Your task to perform on an android device: Go to battery settings Image 0: 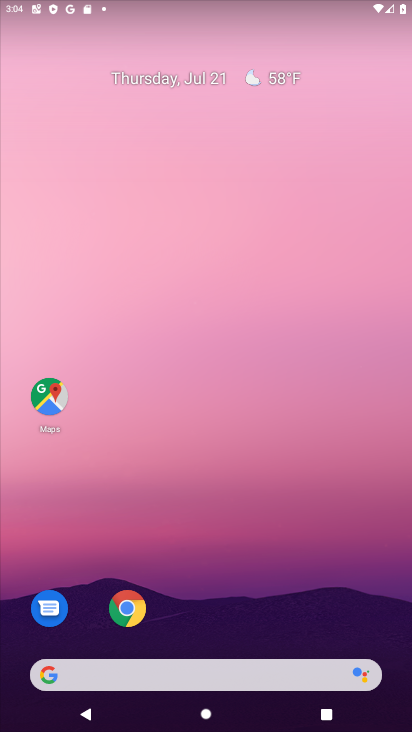
Step 0: press home button
Your task to perform on an android device: Go to battery settings Image 1: 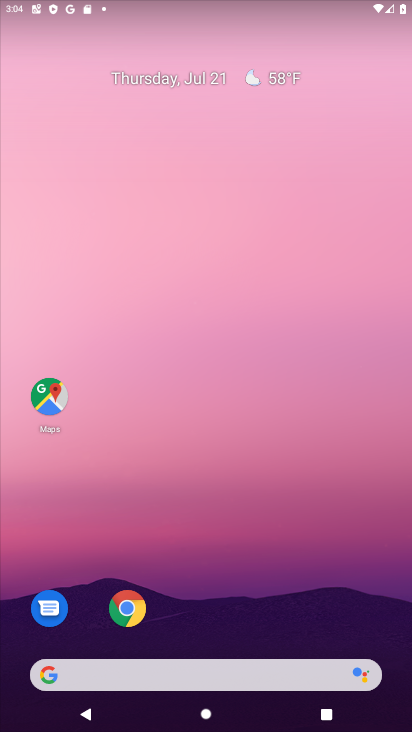
Step 1: drag from (220, 634) to (277, 10)
Your task to perform on an android device: Go to battery settings Image 2: 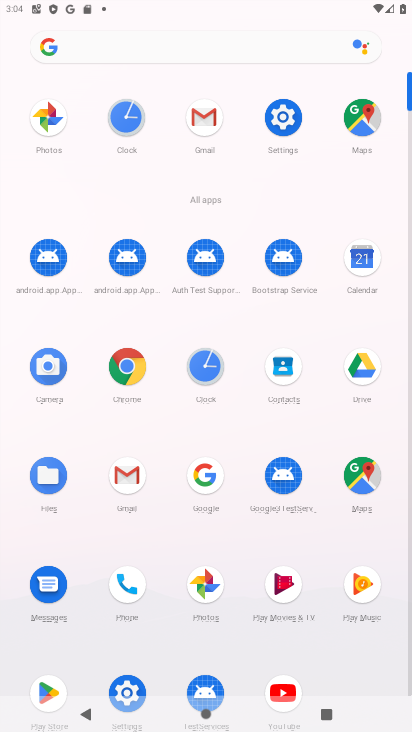
Step 2: click (281, 113)
Your task to perform on an android device: Go to battery settings Image 3: 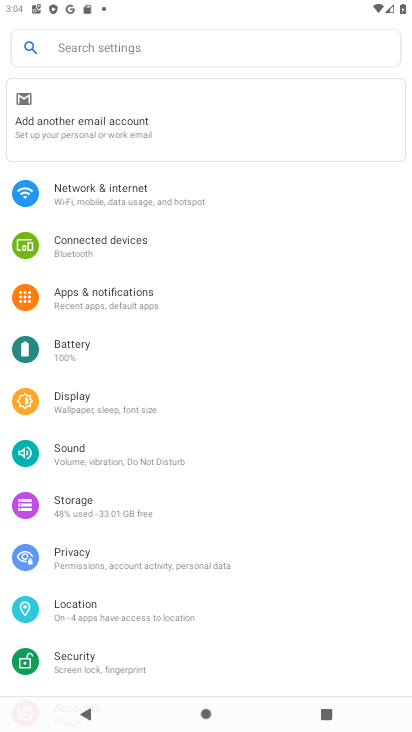
Step 3: click (107, 346)
Your task to perform on an android device: Go to battery settings Image 4: 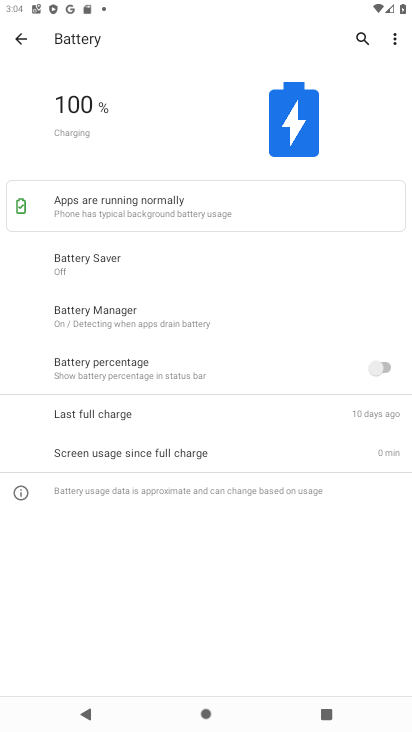
Step 4: click (393, 38)
Your task to perform on an android device: Go to battery settings Image 5: 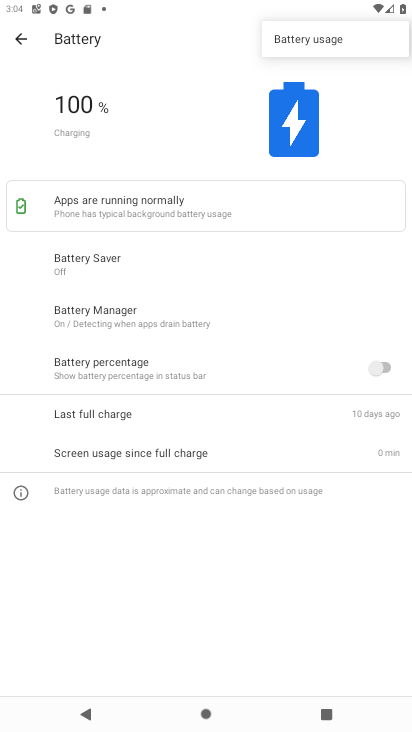
Step 5: task complete